Your task to perform on an android device: Go to Google maps Image 0: 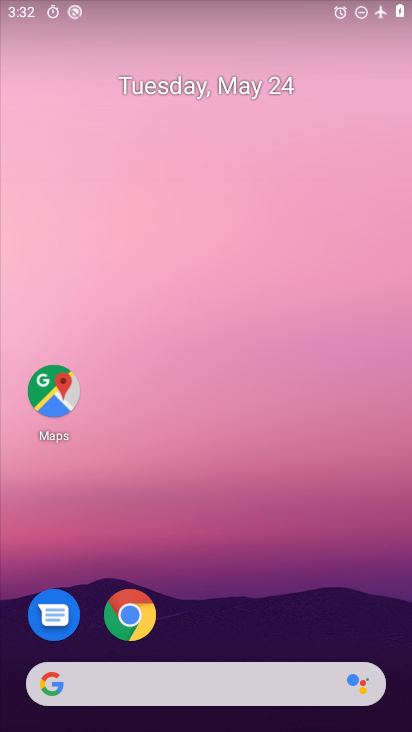
Step 0: click (58, 382)
Your task to perform on an android device: Go to Google maps Image 1: 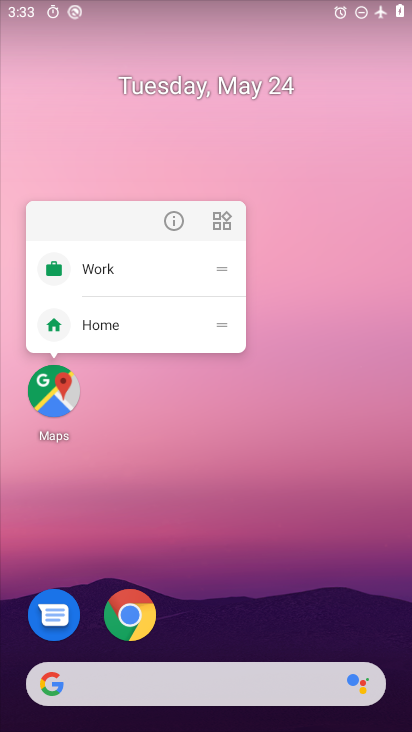
Step 1: drag from (180, 651) to (246, 219)
Your task to perform on an android device: Go to Google maps Image 2: 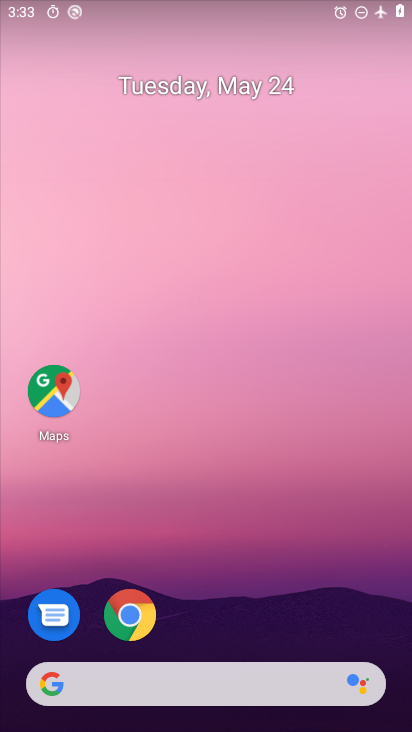
Step 2: click (49, 399)
Your task to perform on an android device: Go to Google maps Image 3: 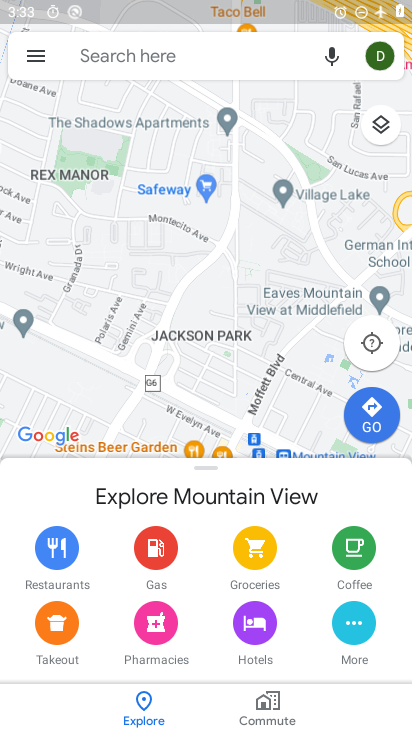
Step 3: click (27, 61)
Your task to perform on an android device: Go to Google maps Image 4: 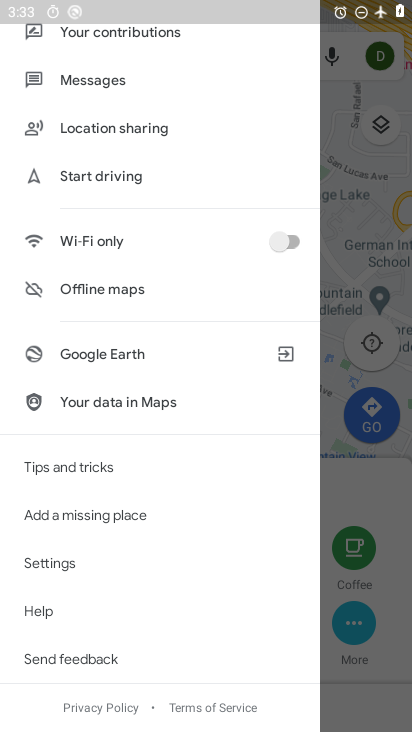
Step 4: click (43, 567)
Your task to perform on an android device: Go to Google maps Image 5: 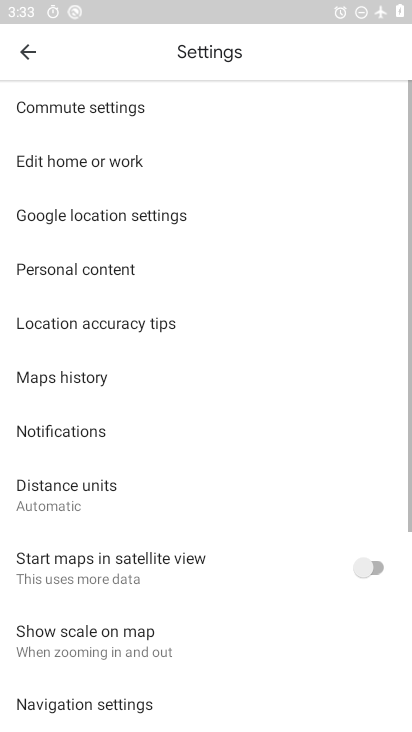
Step 5: task complete